Your task to perform on an android device: Go to CNN.com Image 0: 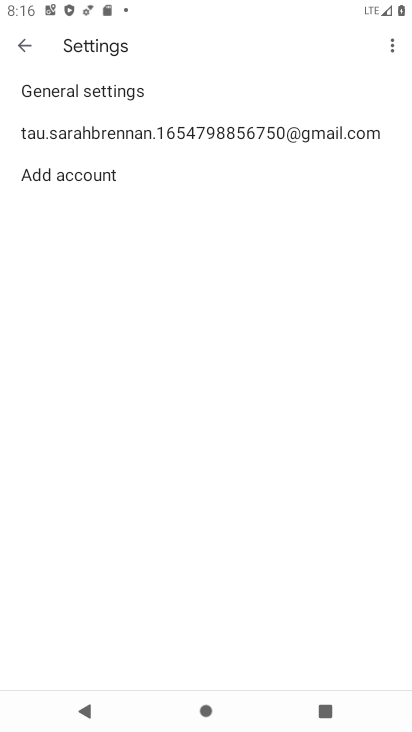
Step 0: press home button
Your task to perform on an android device: Go to CNN.com Image 1: 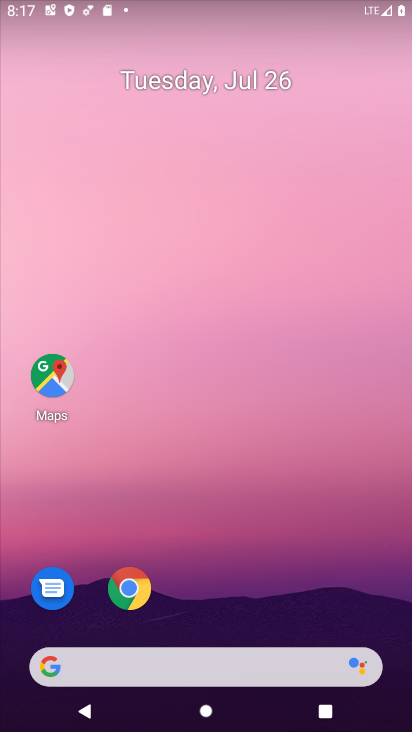
Step 1: click (125, 606)
Your task to perform on an android device: Go to CNN.com Image 2: 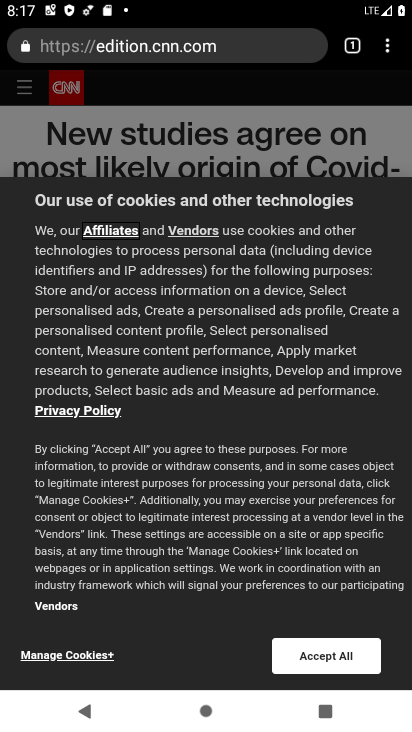
Step 2: task complete